Your task to perform on an android device: Go to Google Image 0: 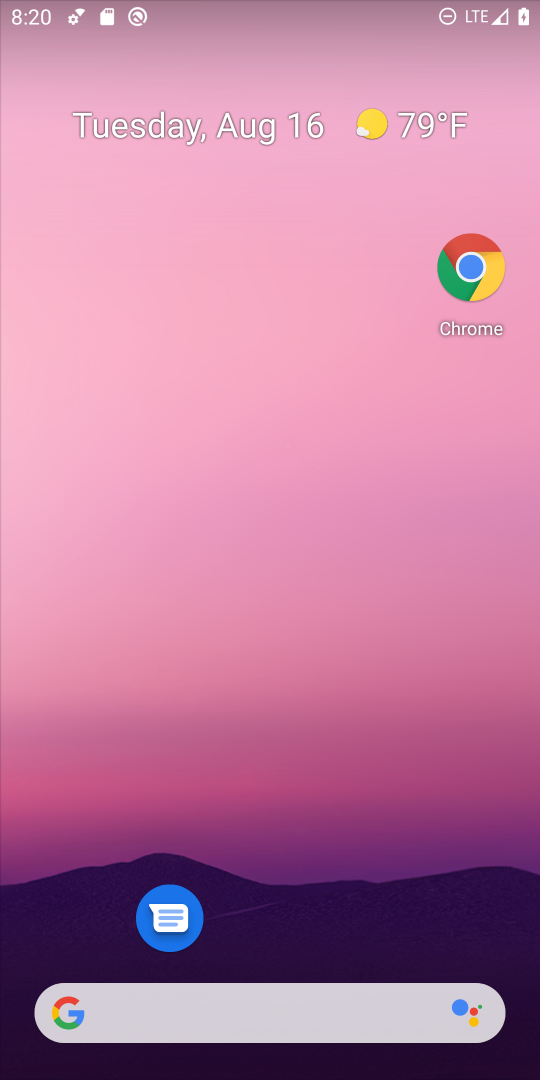
Step 0: drag from (258, 957) to (332, 577)
Your task to perform on an android device: Go to Google Image 1: 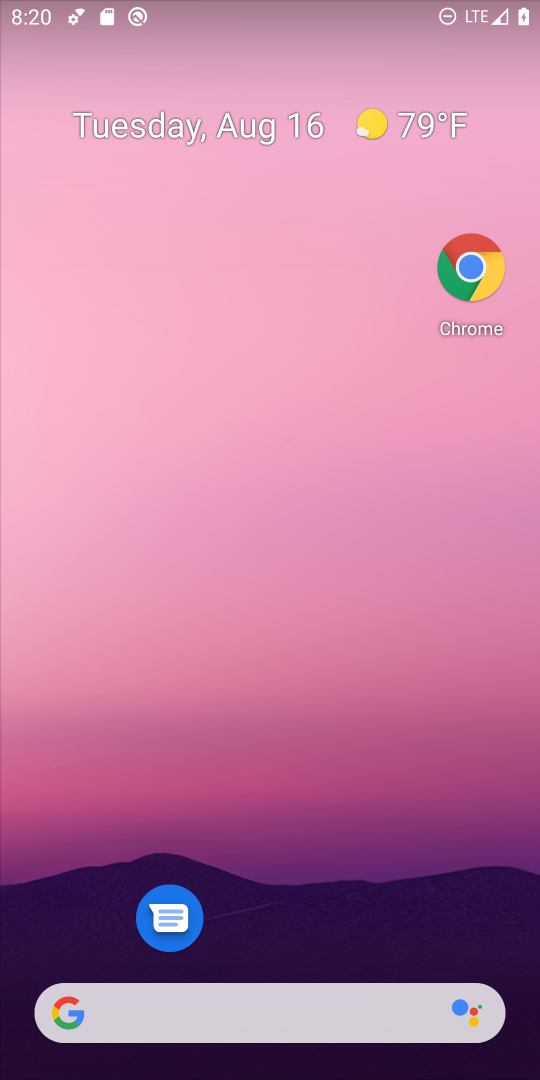
Step 1: drag from (317, 892) to (306, 167)
Your task to perform on an android device: Go to Google Image 2: 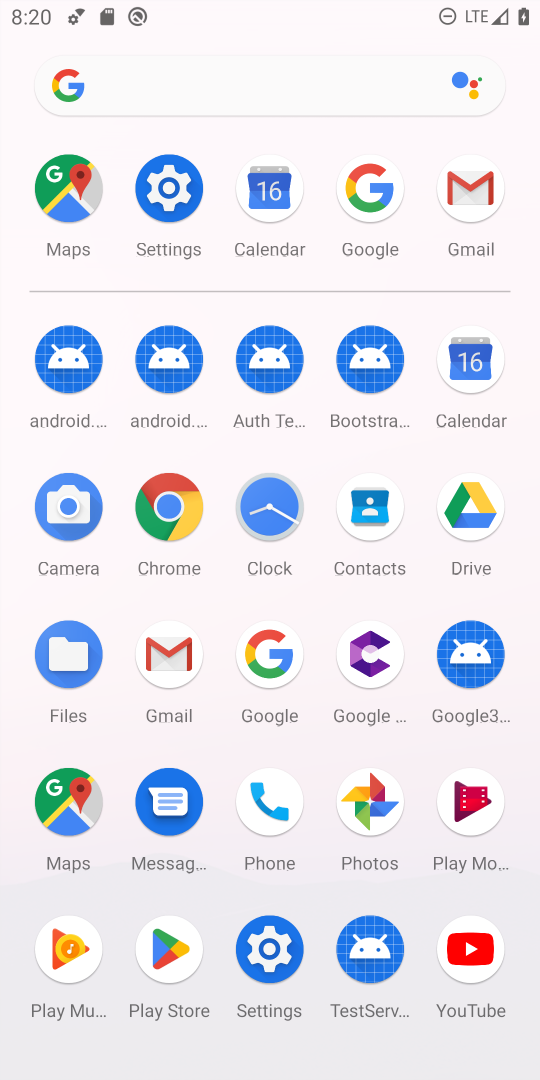
Step 2: click (262, 690)
Your task to perform on an android device: Go to Google Image 3: 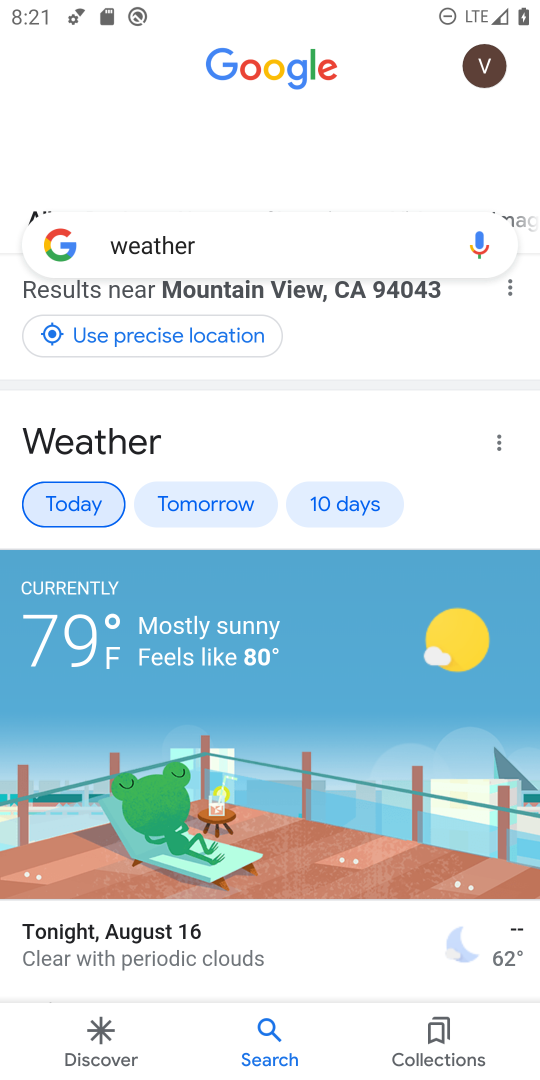
Step 3: task complete